Your task to perform on an android device: set the timer Image 0: 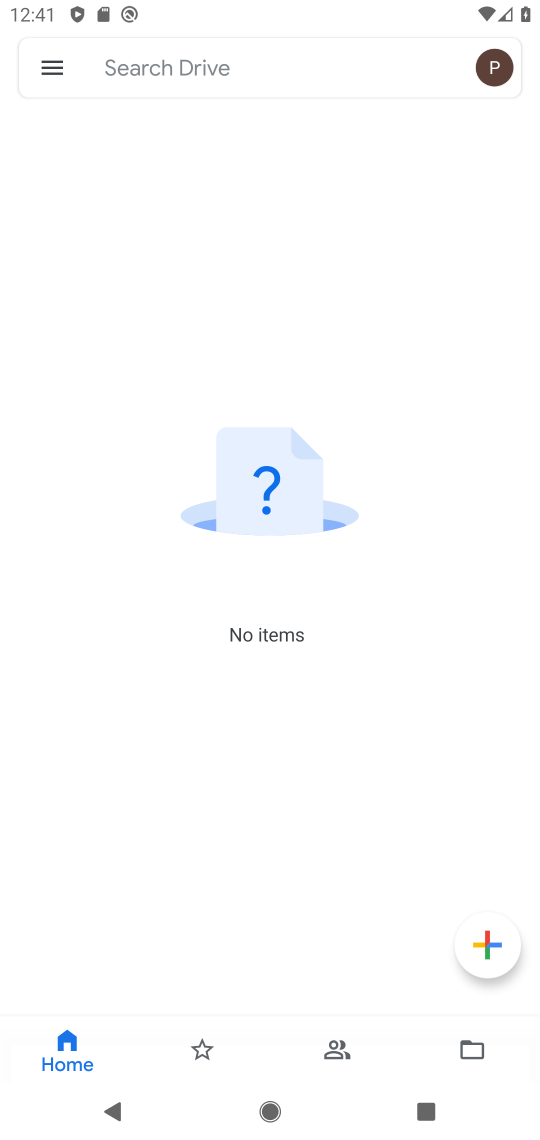
Step 0: press home button
Your task to perform on an android device: set the timer Image 1: 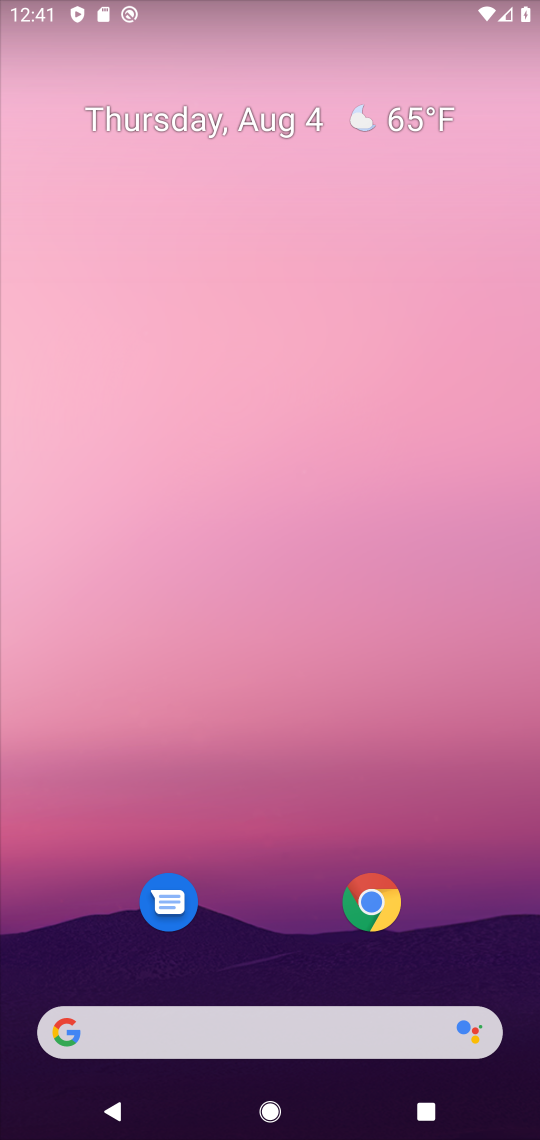
Step 1: drag from (463, 819) to (432, 255)
Your task to perform on an android device: set the timer Image 2: 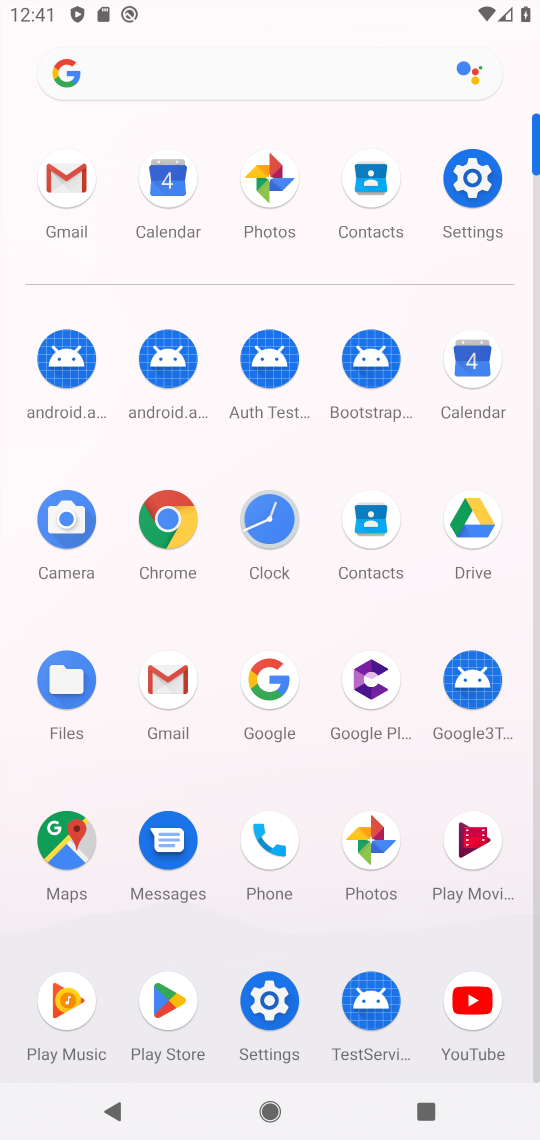
Step 2: click (273, 518)
Your task to perform on an android device: set the timer Image 3: 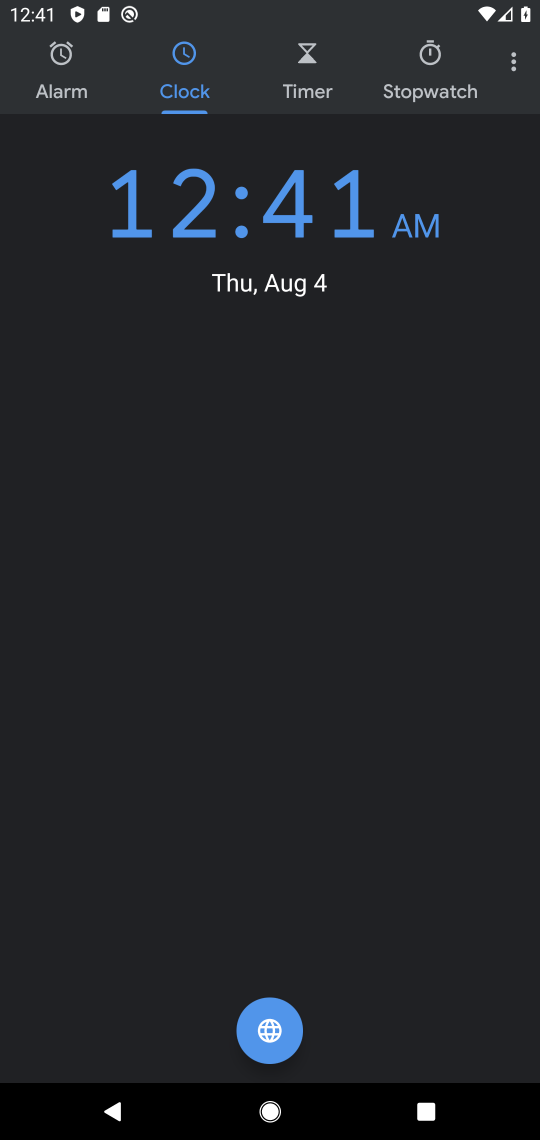
Step 3: click (305, 69)
Your task to perform on an android device: set the timer Image 4: 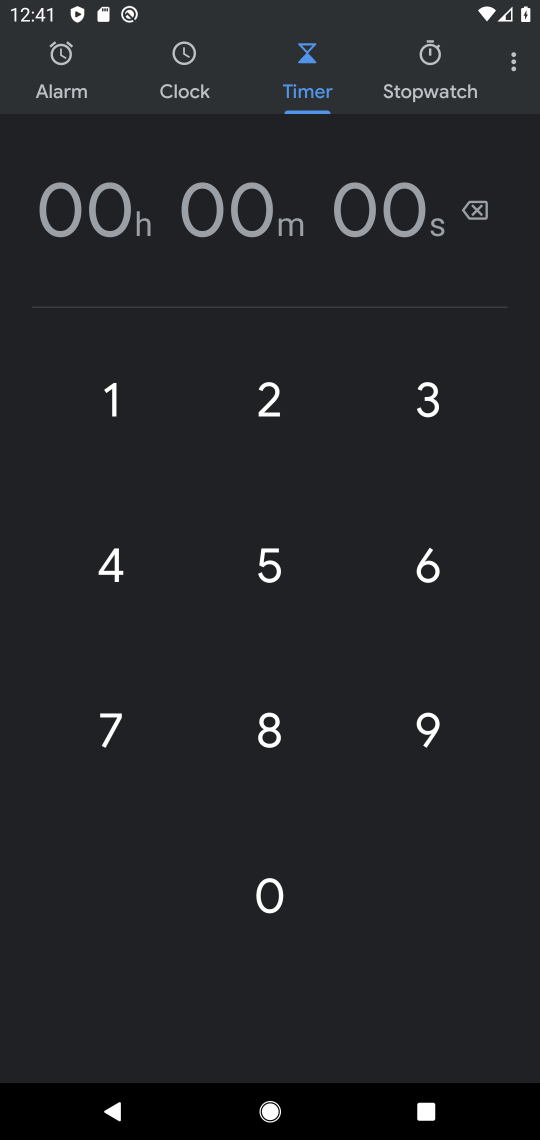
Step 4: click (115, 406)
Your task to perform on an android device: set the timer Image 5: 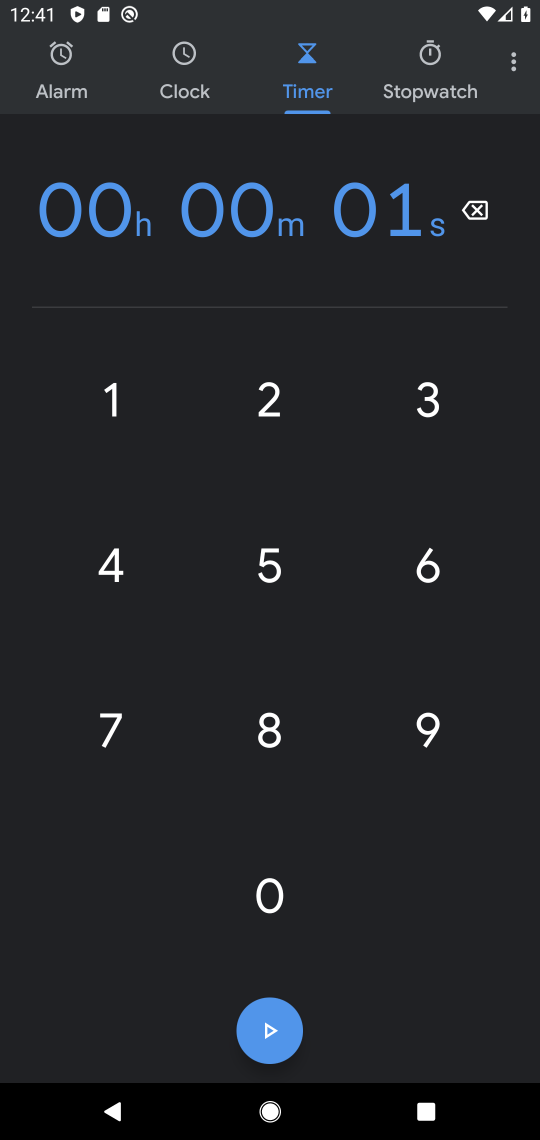
Step 5: click (421, 401)
Your task to perform on an android device: set the timer Image 6: 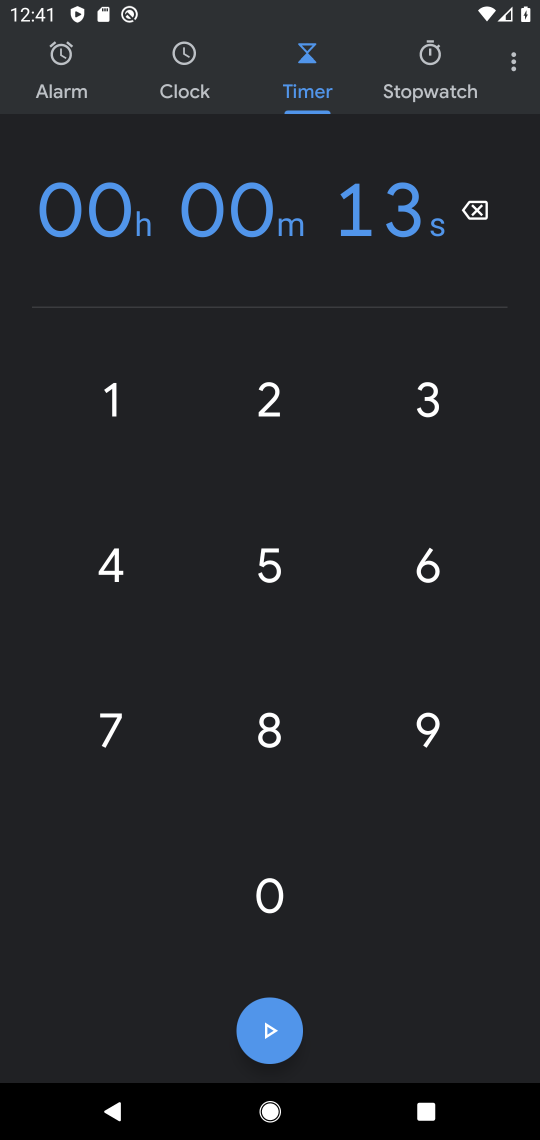
Step 6: click (272, 907)
Your task to perform on an android device: set the timer Image 7: 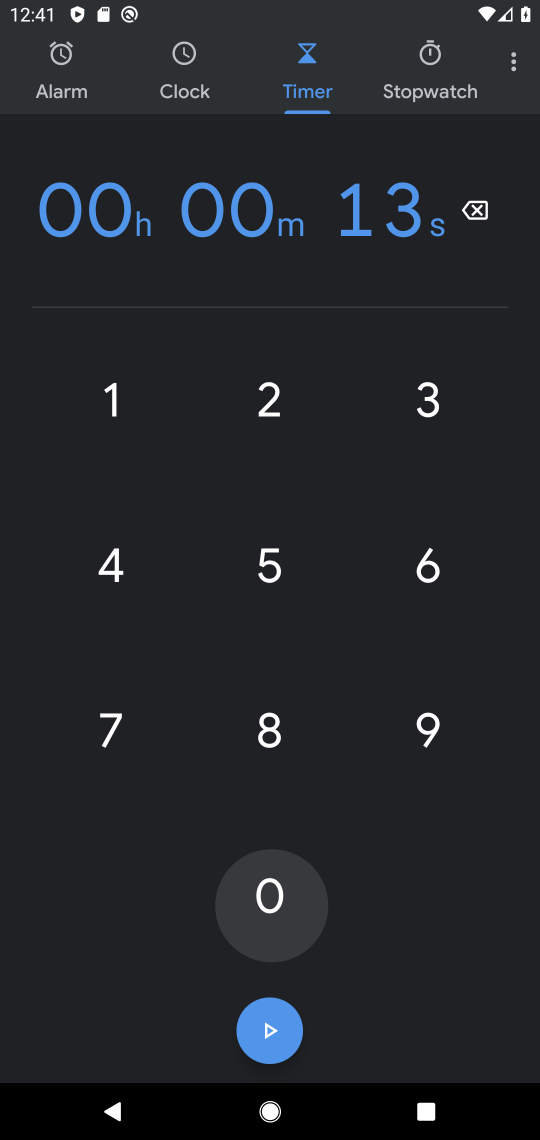
Step 7: click (272, 907)
Your task to perform on an android device: set the timer Image 8: 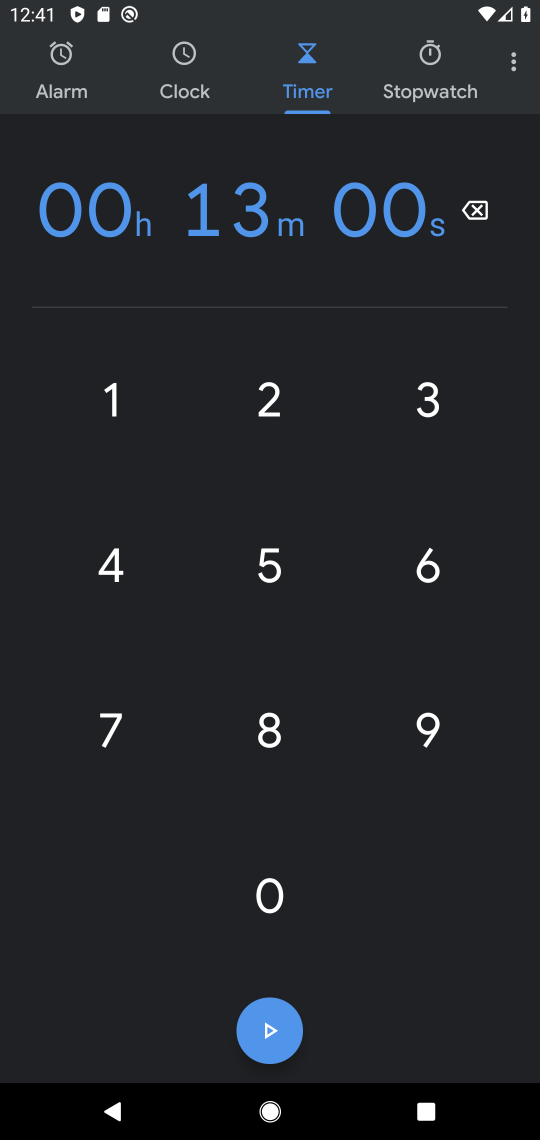
Step 8: click (272, 907)
Your task to perform on an android device: set the timer Image 9: 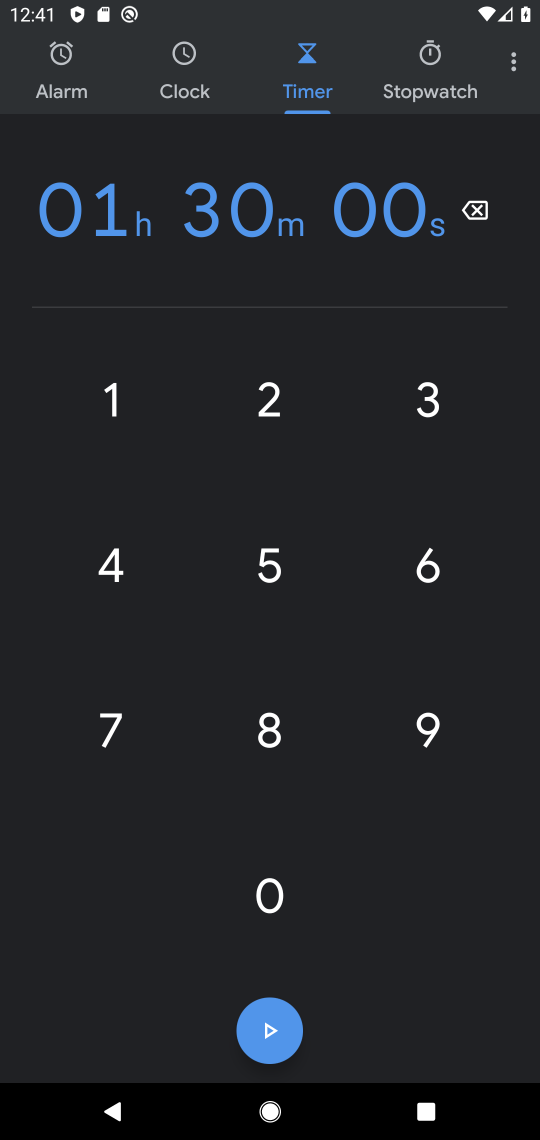
Step 9: task complete